Your task to perform on an android device: Go to CNN.com Image 0: 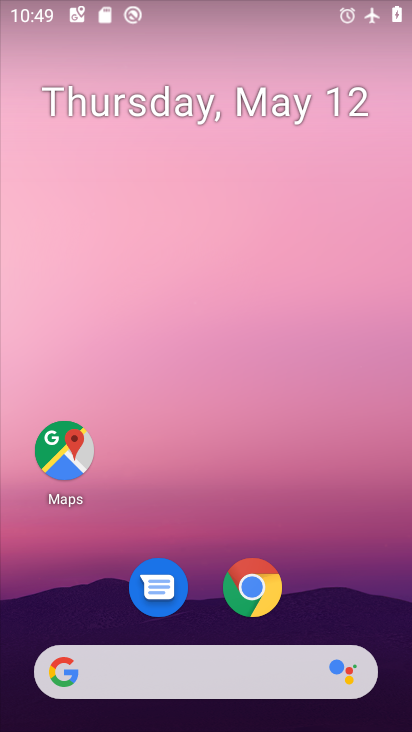
Step 0: drag from (390, 624) to (327, 14)
Your task to perform on an android device: Go to CNN.com Image 1: 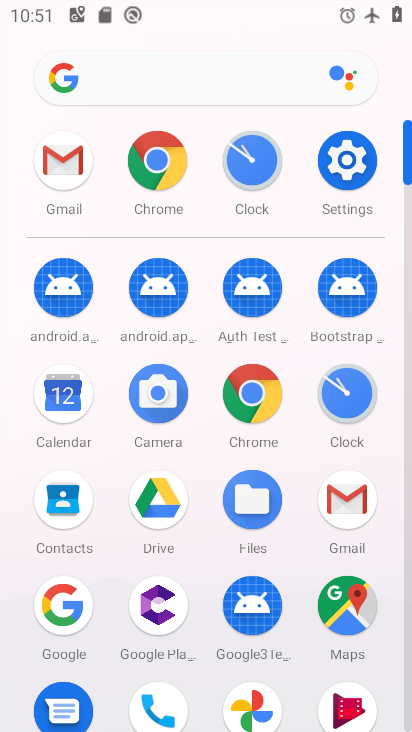
Step 1: click (294, 390)
Your task to perform on an android device: Go to CNN.com Image 2: 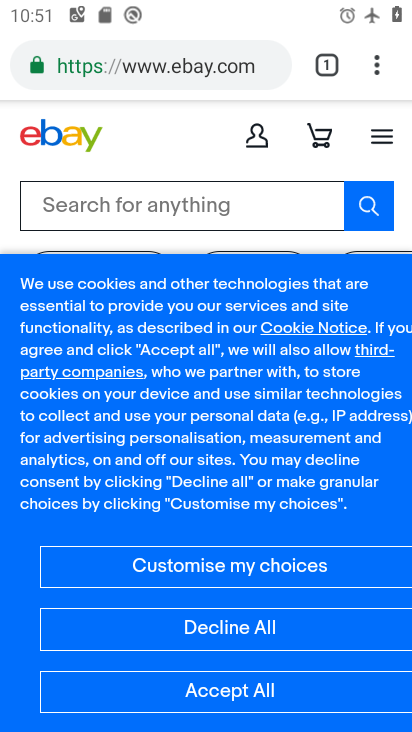
Step 2: press back button
Your task to perform on an android device: Go to CNN.com Image 3: 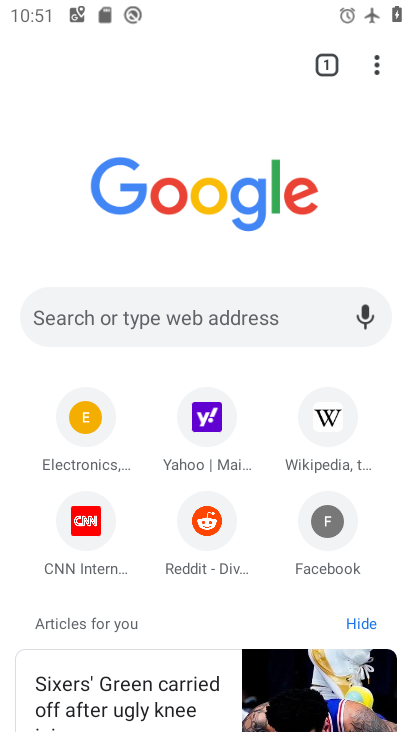
Step 3: click (205, 305)
Your task to perform on an android device: Go to CNN.com Image 4: 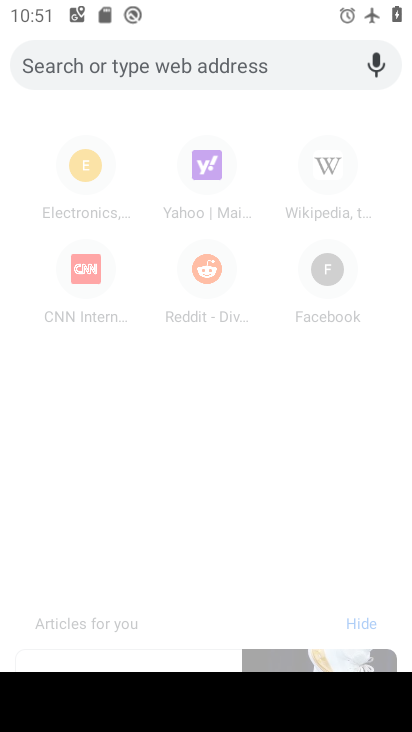
Step 4: press back button
Your task to perform on an android device: Go to CNN.com Image 5: 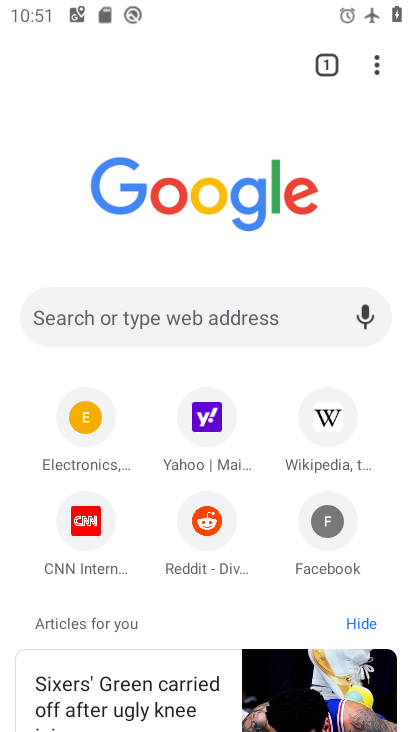
Step 5: click (95, 539)
Your task to perform on an android device: Go to CNN.com Image 6: 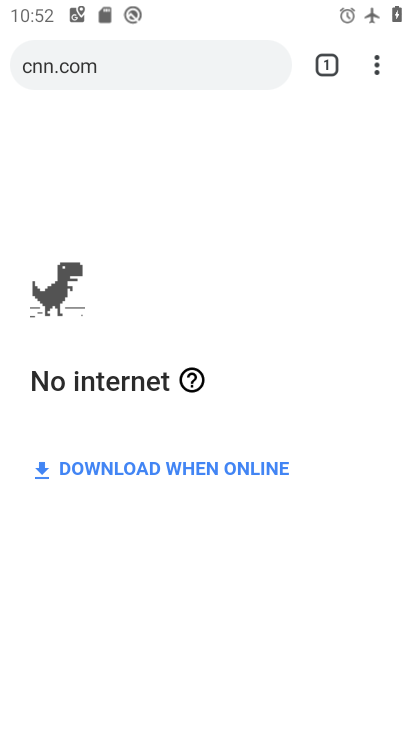
Step 6: task complete